Your task to perform on an android device: What's the weather going to be tomorrow? Image 0: 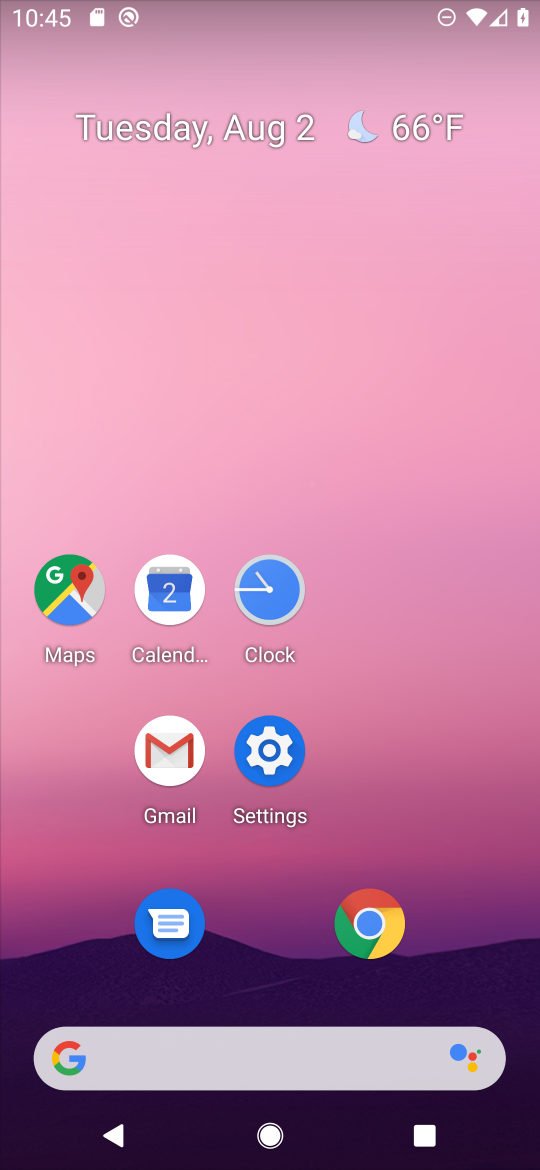
Step 0: click (419, 120)
Your task to perform on an android device: What's the weather going to be tomorrow? Image 1: 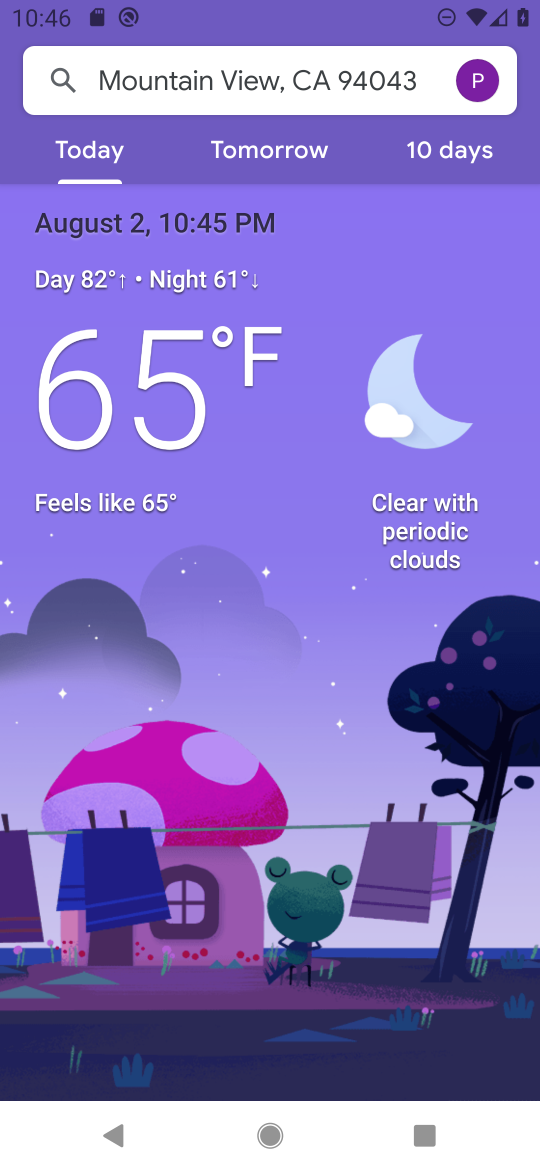
Step 1: click (453, 145)
Your task to perform on an android device: What's the weather going to be tomorrow? Image 2: 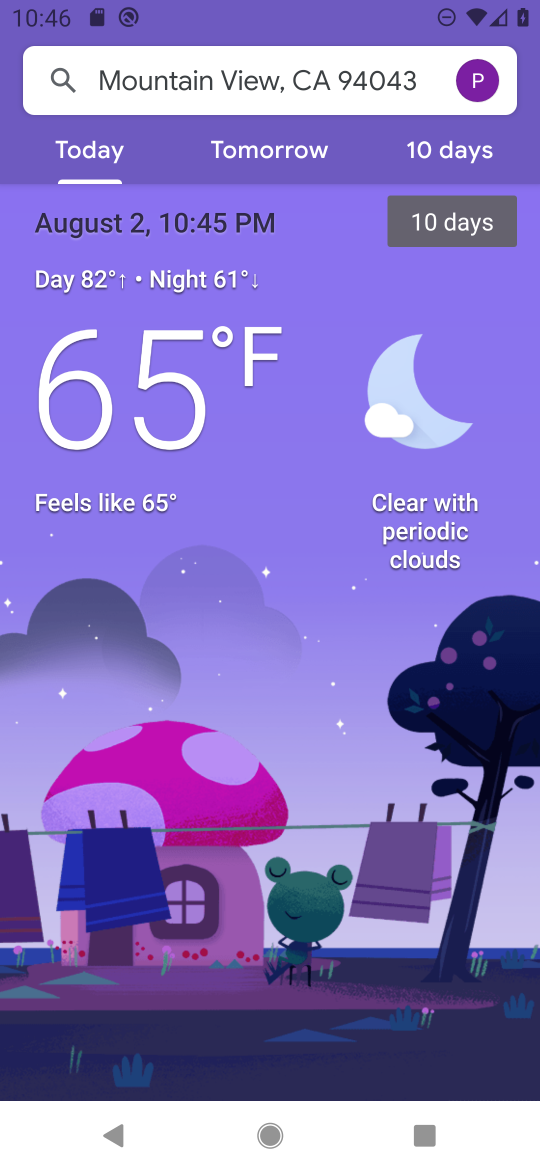
Step 2: task complete